Your task to perform on an android device: remove spam from my inbox in the gmail app Image 0: 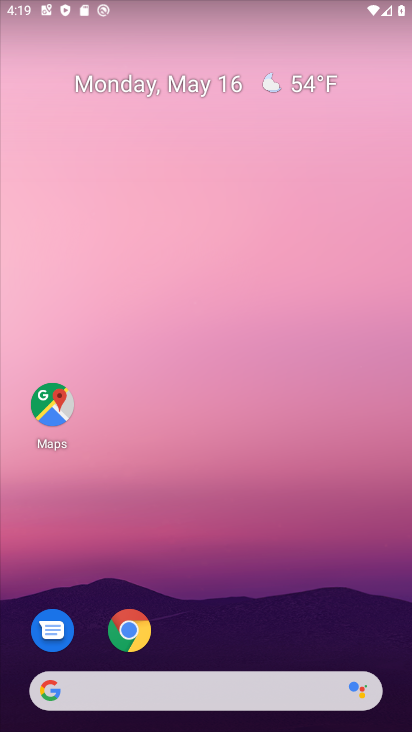
Step 0: drag from (220, 634) to (182, 145)
Your task to perform on an android device: remove spam from my inbox in the gmail app Image 1: 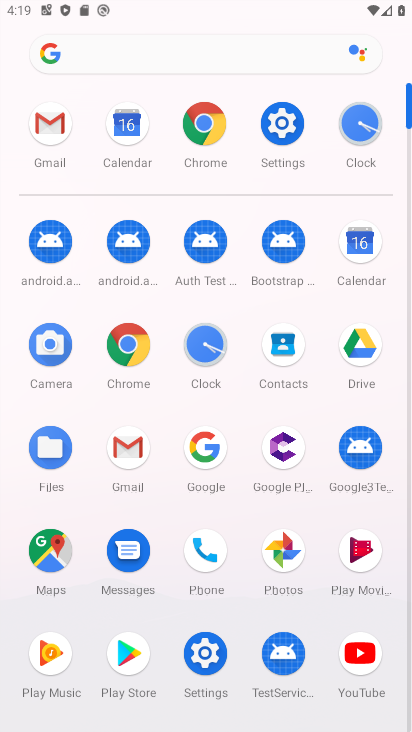
Step 1: click (50, 122)
Your task to perform on an android device: remove spam from my inbox in the gmail app Image 2: 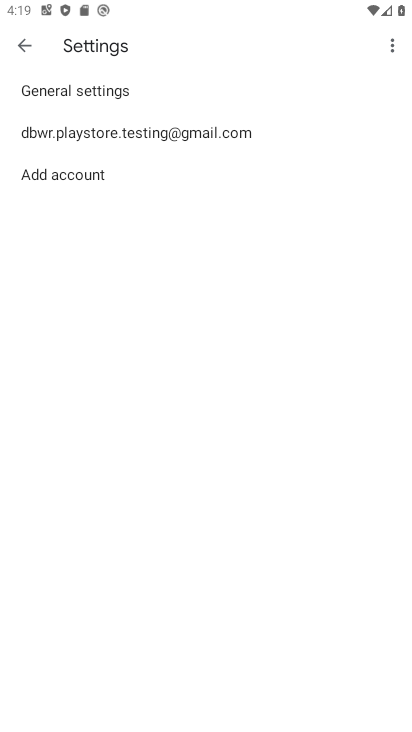
Step 2: click (50, 122)
Your task to perform on an android device: remove spam from my inbox in the gmail app Image 3: 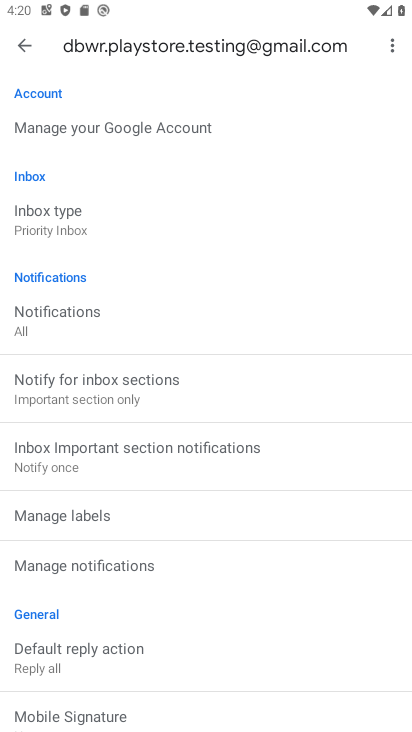
Step 3: click (30, 47)
Your task to perform on an android device: remove spam from my inbox in the gmail app Image 4: 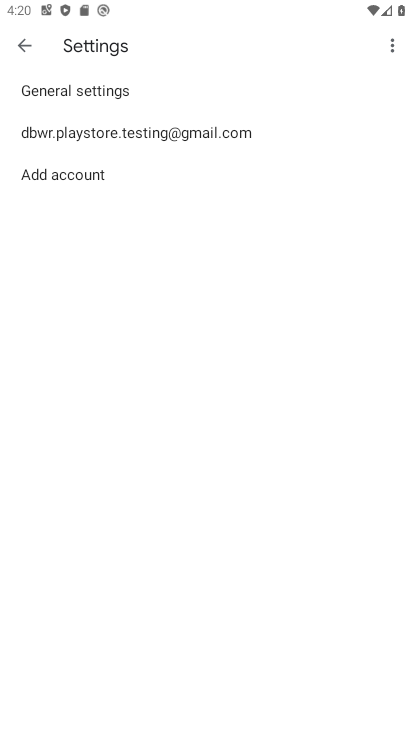
Step 4: click (30, 47)
Your task to perform on an android device: remove spam from my inbox in the gmail app Image 5: 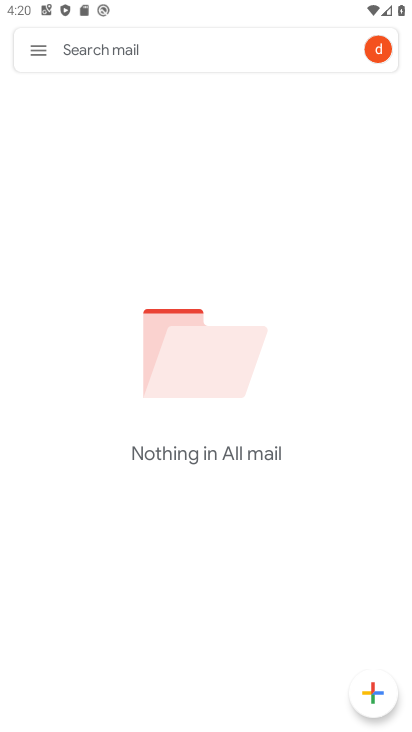
Step 5: click (30, 47)
Your task to perform on an android device: remove spam from my inbox in the gmail app Image 6: 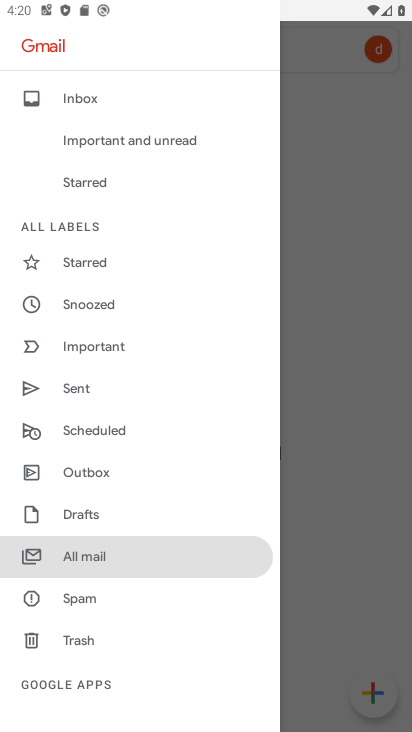
Step 6: click (101, 594)
Your task to perform on an android device: remove spam from my inbox in the gmail app Image 7: 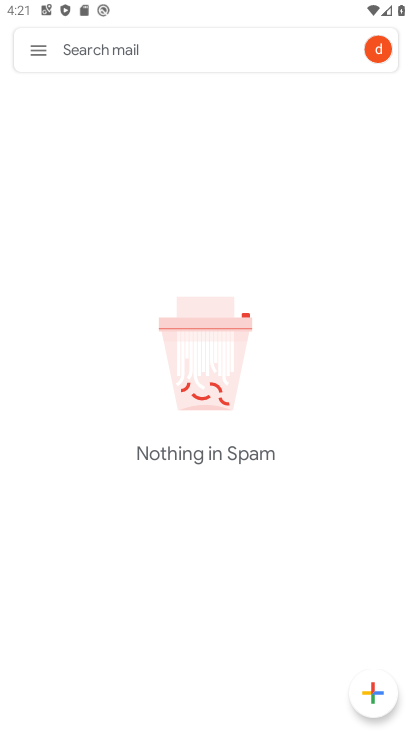
Step 7: click (42, 51)
Your task to perform on an android device: remove spam from my inbox in the gmail app Image 8: 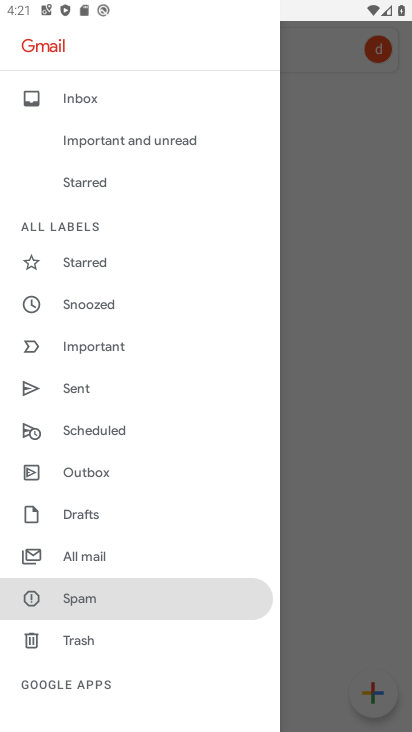
Step 8: click (227, 603)
Your task to perform on an android device: remove spam from my inbox in the gmail app Image 9: 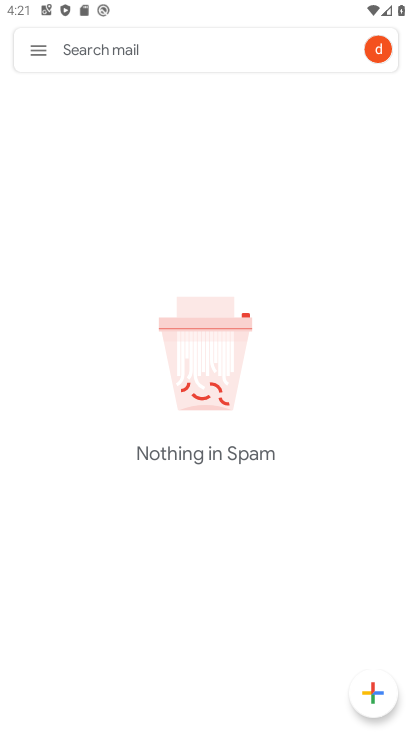
Step 9: task complete